Your task to perform on an android device: open chrome and create a bookmark for the current page Image 0: 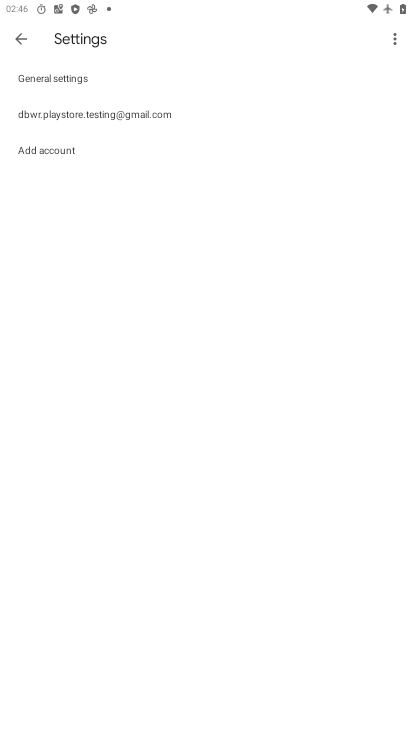
Step 0: press home button
Your task to perform on an android device: open chrome and create a bookmark for the current page Image 1: 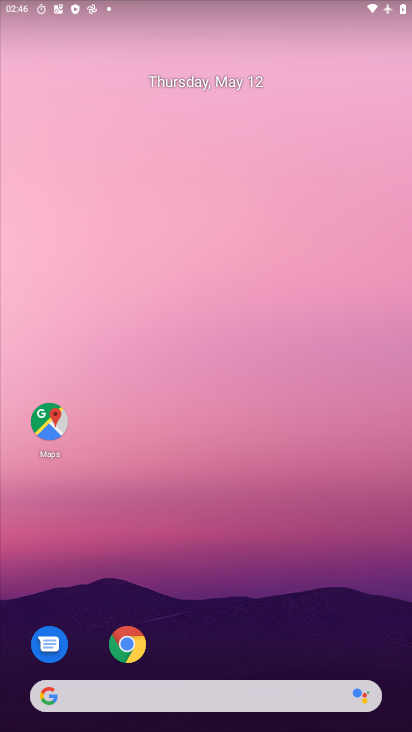
Step 1: click (130, 636)
Your task to perform on an android device: open chrome and create a bookmark for the current page Image 2: 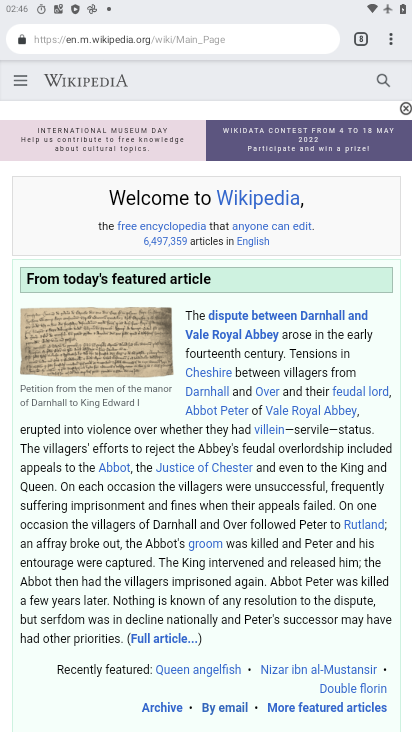
Step 2: click (389, 51)
Your task to perform on an android device: open chrome and create a bookmark for the current page Image 3: 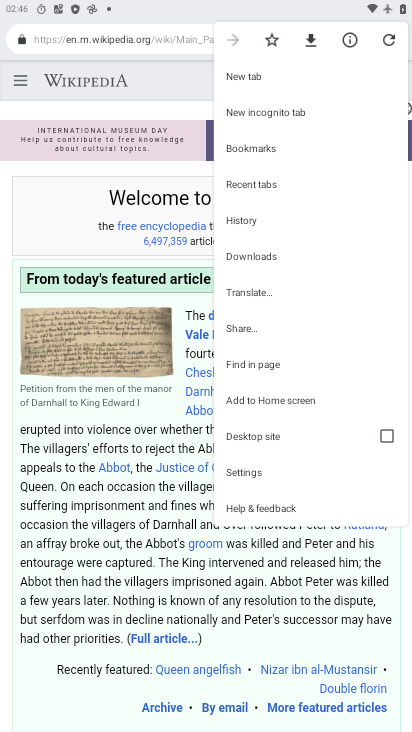
Step 3: click (272, 36)
Your task to perform on an android device: open chrome and create a bookmark for the current page Image 4: 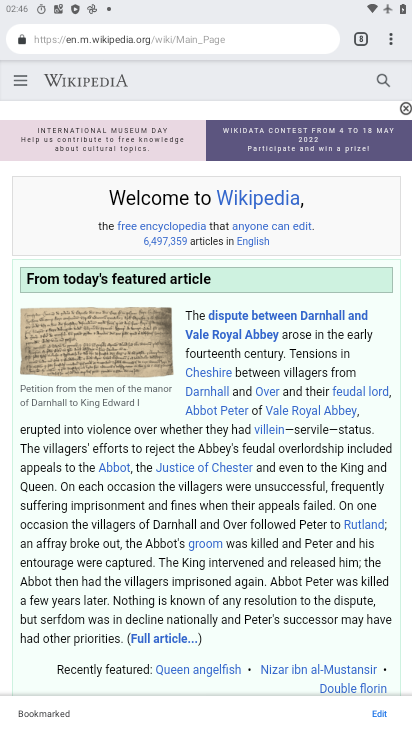
Step 4: task complete